Your task to perform on an android device: clear all cookies in the chrome app Image 0: 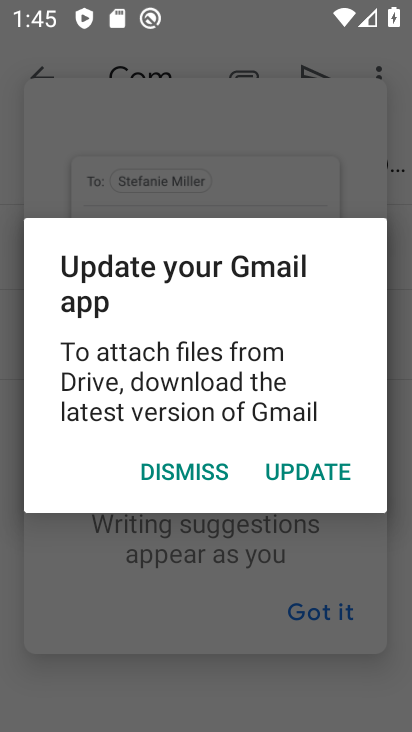
Step 0: press home button
Your task to perform on an android device: clear all cookies in the chrome app Image 1: 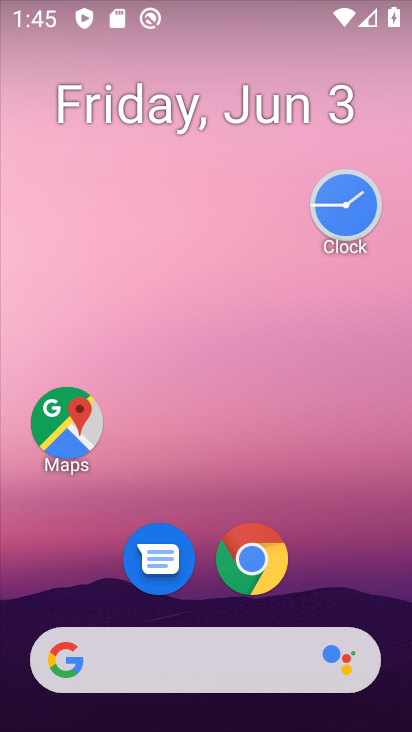
Step 1: click (274, 543)
Your task to perform on an android device: clear all cookies in the chrome app Image 2: 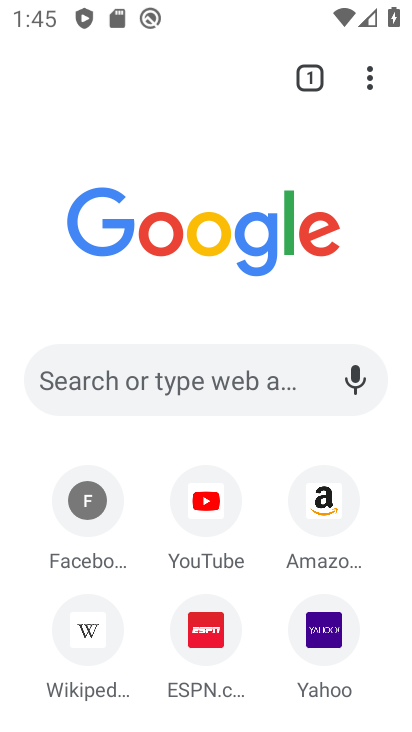
Step 2: click (367, 71)
Your task to perform on an android device: clear all cookies in the chrome app Image 3: 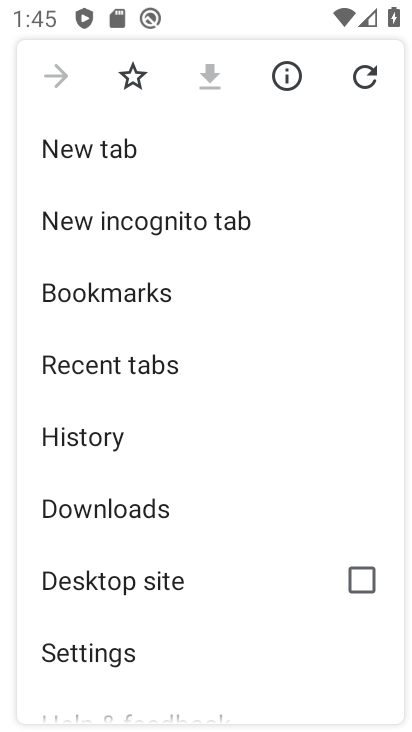
Step 3: click (104, 638)
Your task to perform on an android device: clear all cookies in the chrome app Image 4: 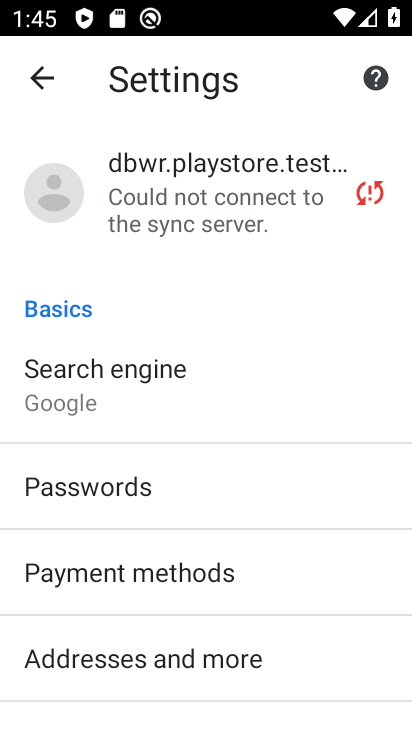
Step 4: drag from (157, 303) to (181, 87)
Your task to perform on an android device: clear all cookies in the chrome app Image 5: 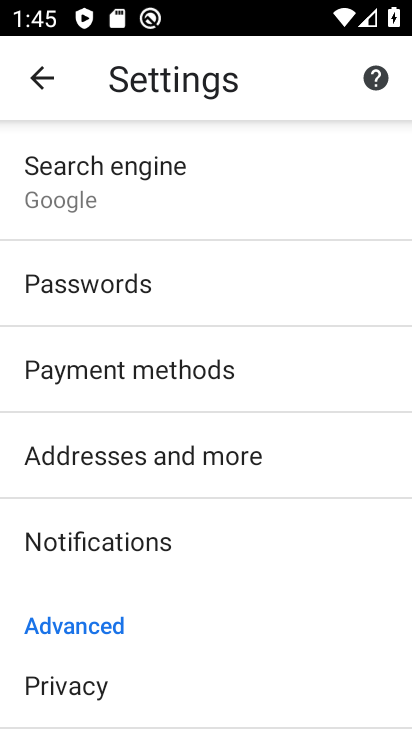
Step 5: click (75, 675)
Your task to perform on an android device: clear all cookies in the chrome app Image 6: 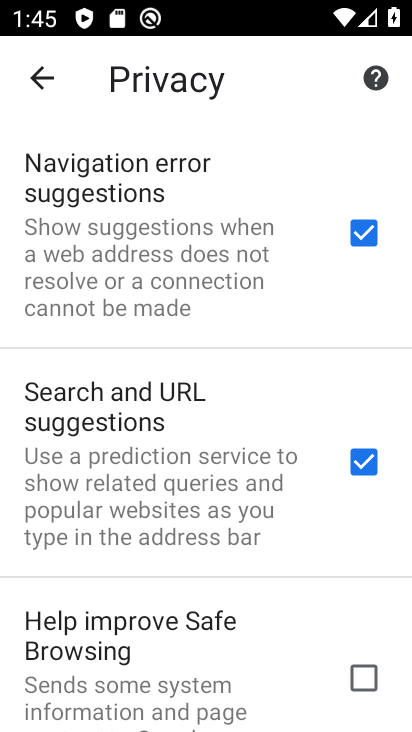
Step 6: drag from (112, 608) to (188, 130)
Your task to perform on an android device: clear all cookies in the chrome app Image 7: 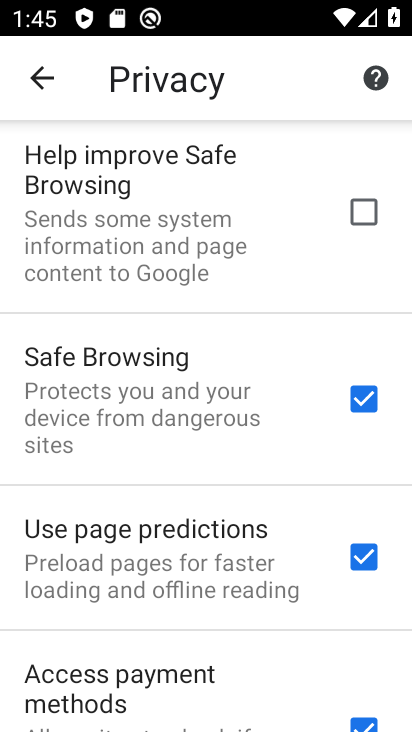
Step 7: drag from (173, 562) to (183, 188)
Your task to perform on an android device: clear all cookies in the chrome app Image 8: 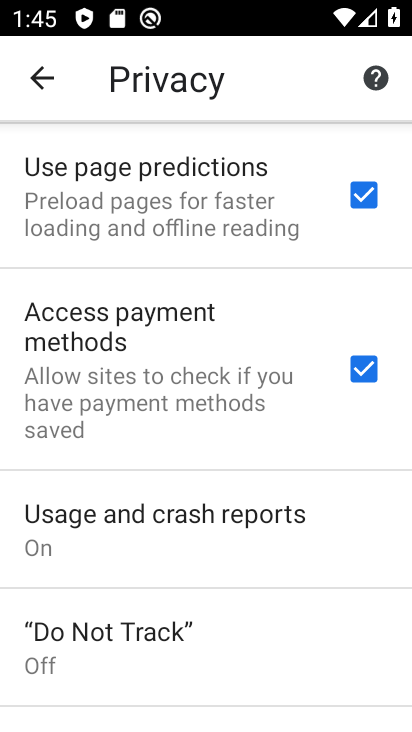
Step 8: drag from (156, 598) to (164, 340)
Your task to perform on an android device: clear all cookies in the chrome app Image 9: 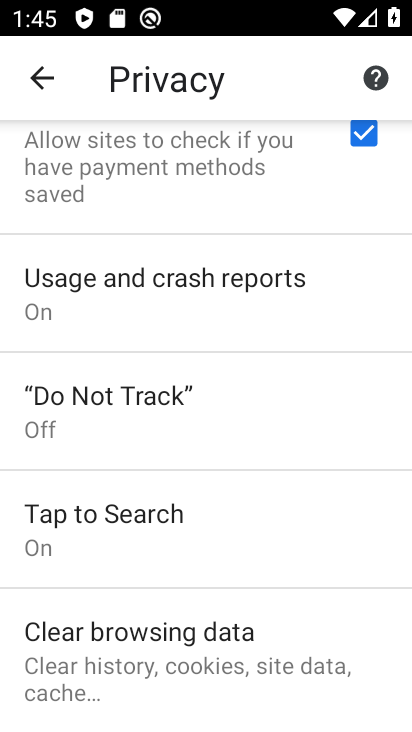
Step 9: click (162, 639)
Your task to perform on an android device: clear all cookies in the chrome app Image 10: 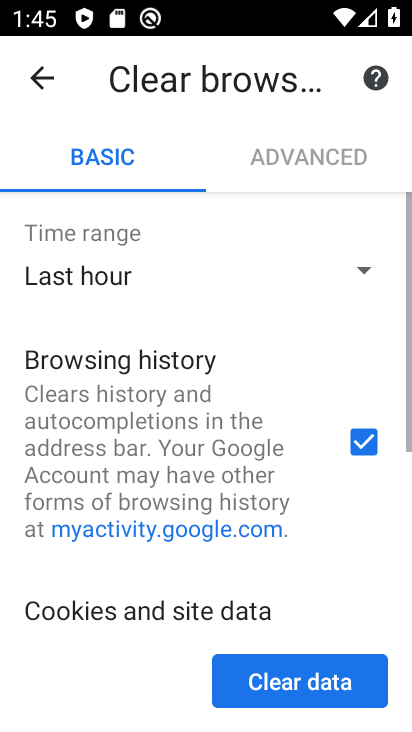
Step 10: click (269, 270)
Your task to perform on an android device: clear all cookies in the chrome app Image 11: 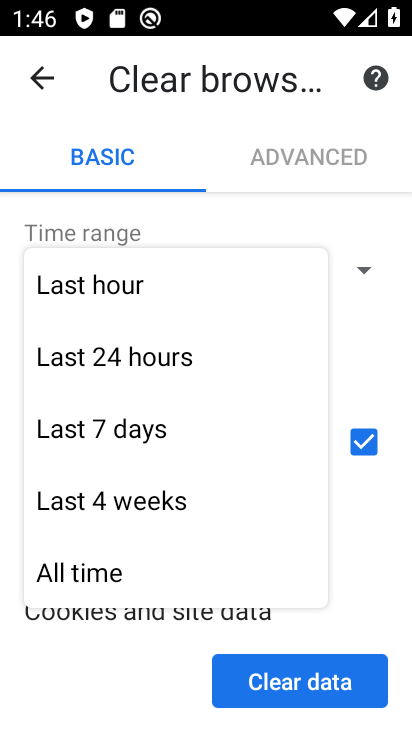
Step 11: click (123, 579)
Your task to perform on an android device: clear all cookies in the chrome app Image 12: 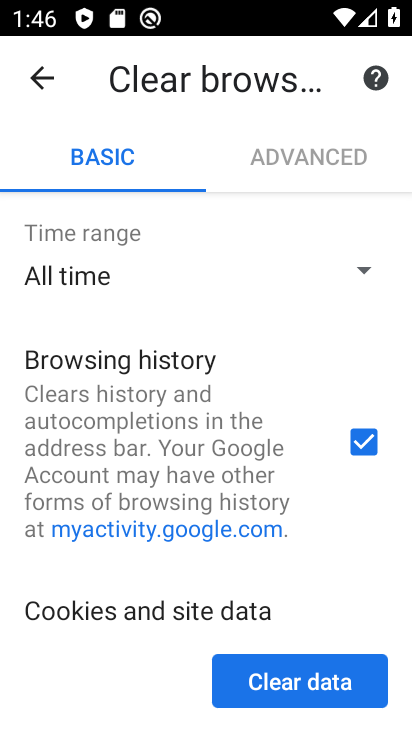
Step 12: click (362, 442)
Your task to perform on an android device: clear all cookies in the chrome app Image 13: 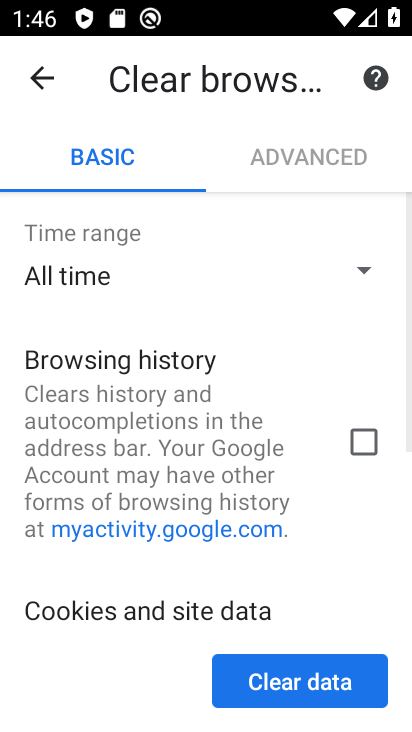
Step 13: drag from (170, 510) to (155, 215)
Your task to perform on an android device: clear all cookies in the chrome app Image 14: 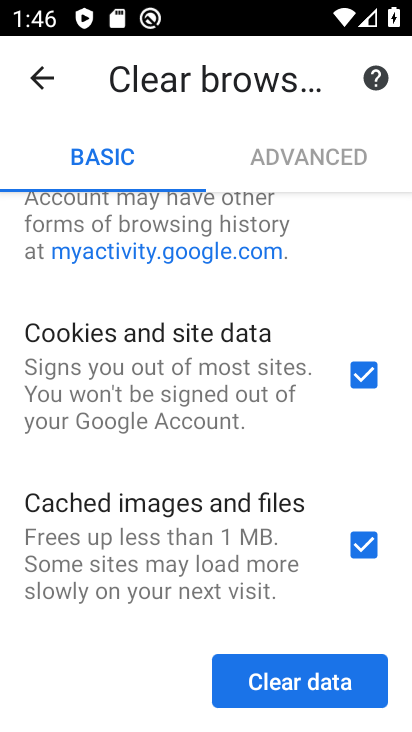
Step 14: click (356, 545)
Your task to perform on an android device: clear all cookies in the chrome app Image 15: 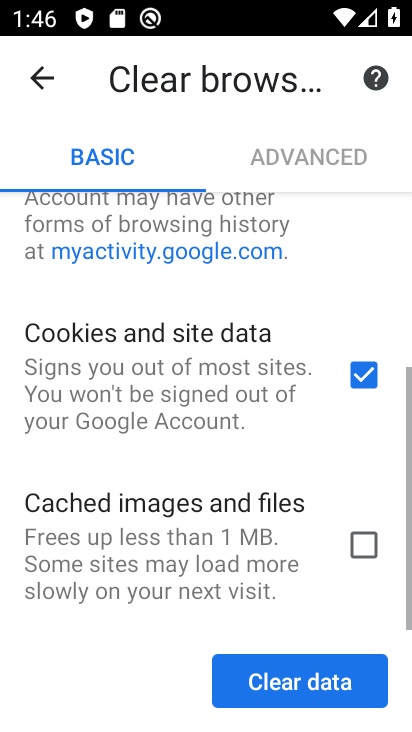
Step 15: click (284, 675)
Your task to perform on an android device: clear all cookies in the chrome app Image 16: 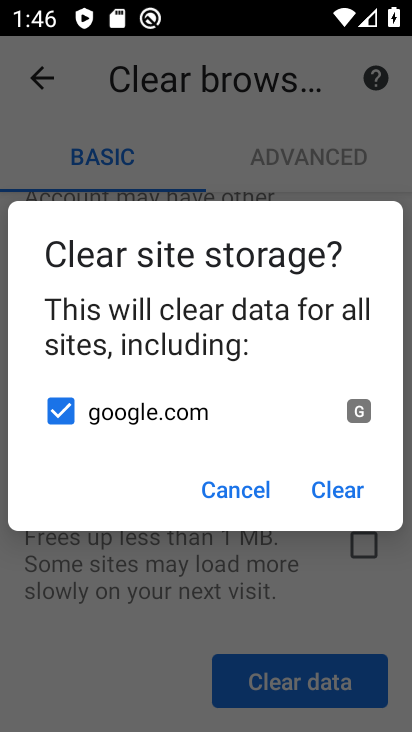
Step 16: click (355, 492)
Your task to perform on an android device: clear all cookies in the chrome app Image 17: 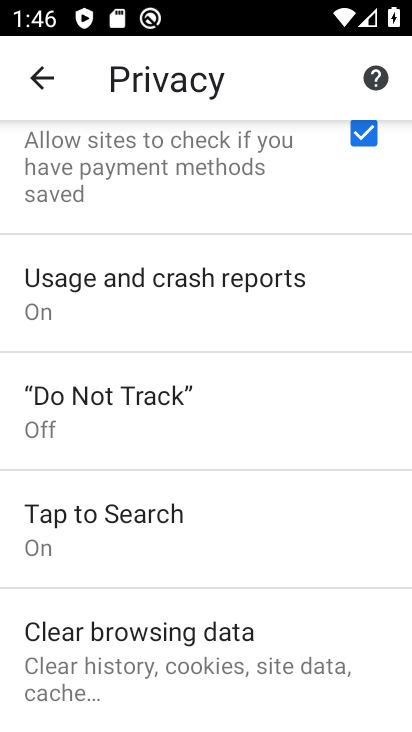
Step 17: task complete